Your task to perform on an android device: turn on airplane mode Image 0: 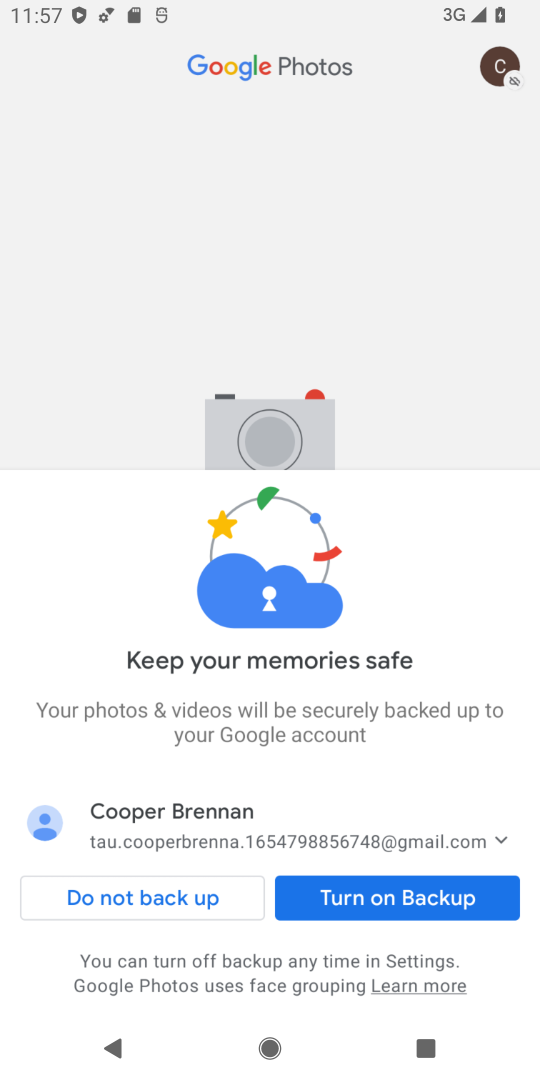
Step 0: press home button
Your task to perform on an android device: turn on airplane mode Image 1: 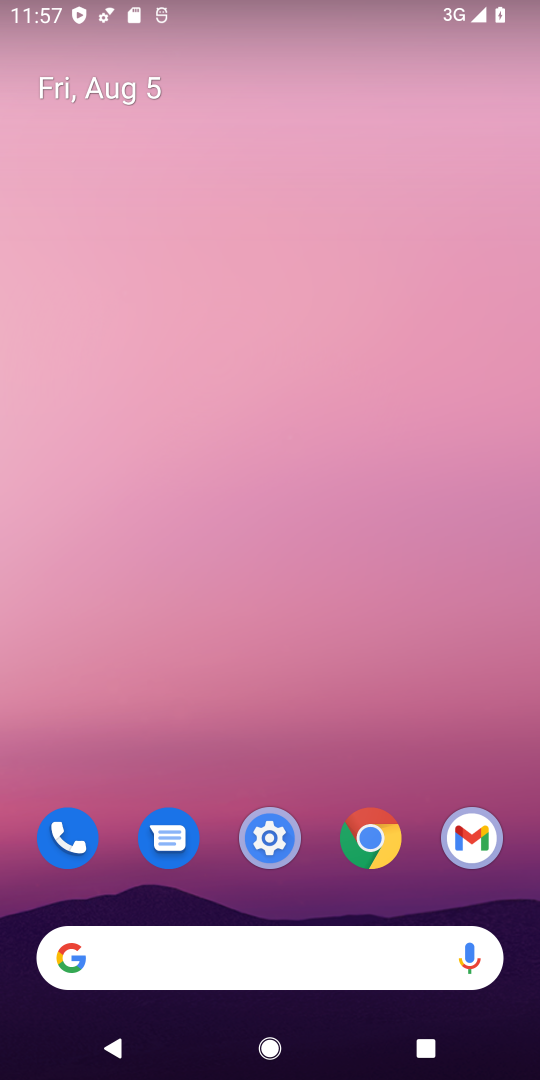
Step 1: click (273, 829)
Your task to perform on an android device: turn on airplane mode Image 2: 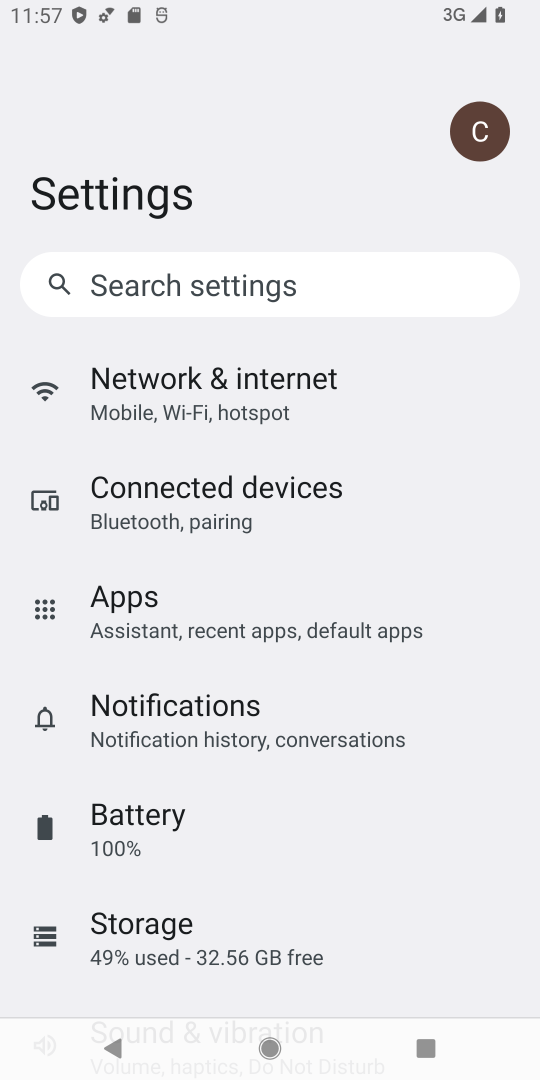
Step 2: click (238, 378)
Your task to perform on an android device: turn on airplane mode Image 3: 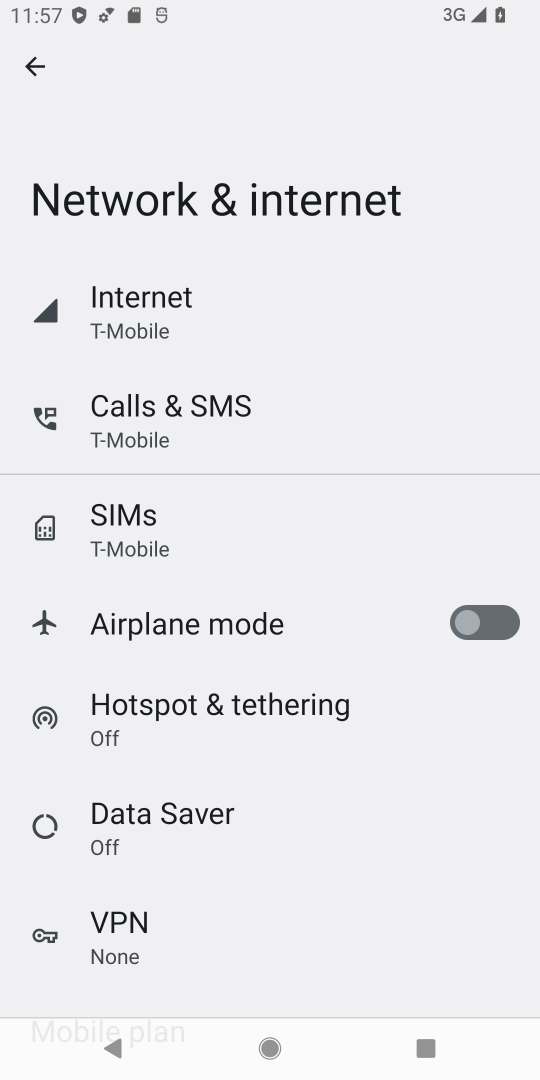
Step 3: click (480, 627)
Your task to perform on an android device: turn on airplane mode Image 4: 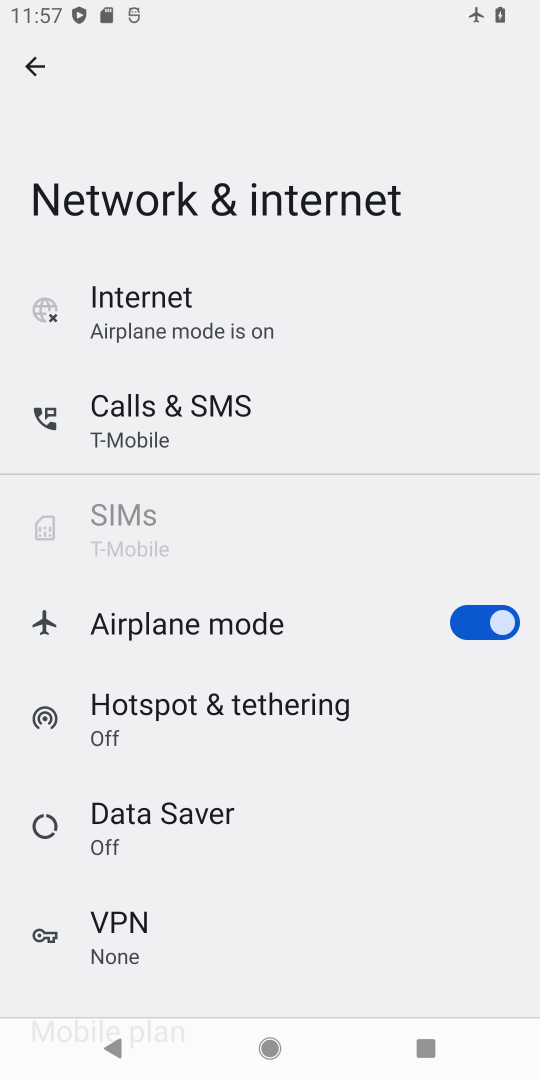
Step 4: task complete